Your task to perform on an android device: make emails show in primary in the gmail app Image 0: 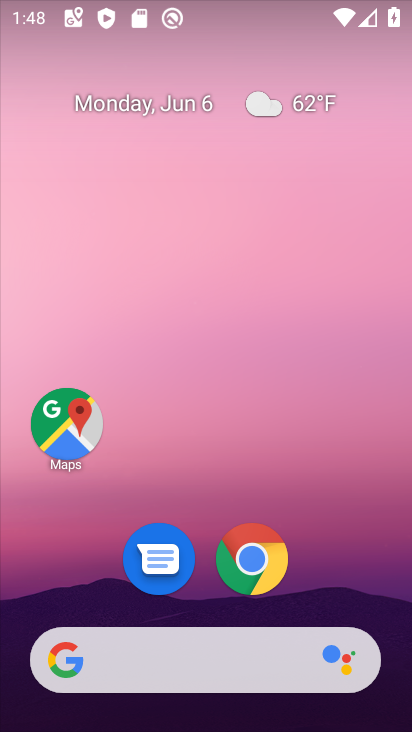
Step 0: drag from (58, 613) to (144, 197)
Your task to perform on an android device: make emails show in primary in the gmail app Image 1: 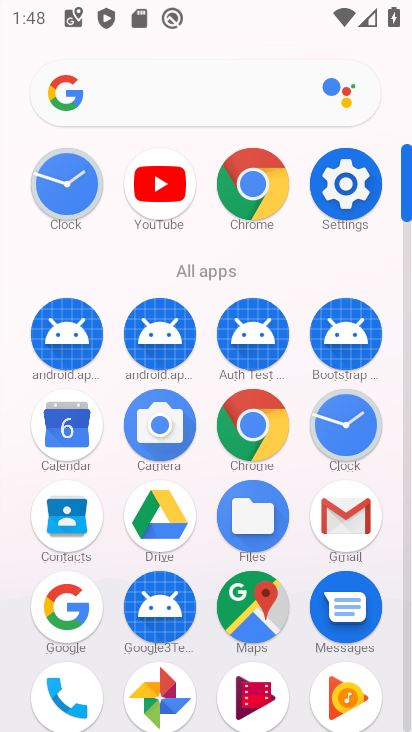
Step 1: click (357, 524)
Your task to perform on an android device: make emails show in primary in the gmail app Image 2: 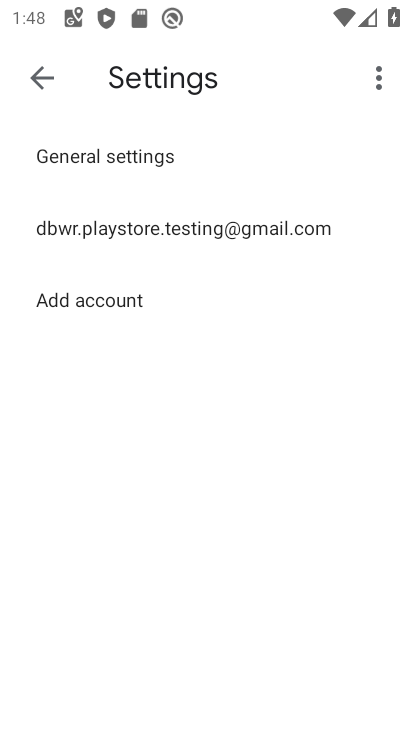
Step 2: click (168, 239)
Your task to perform on an android device: make emails show in primary in the gmail app Image 3: 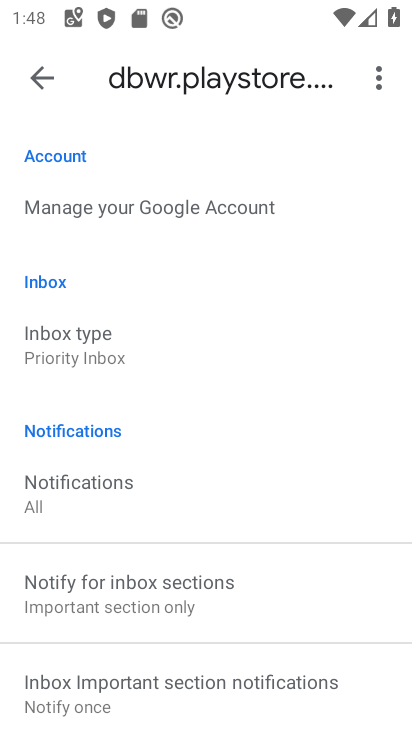
Step 3: click (147, 353)
Your task to perform on an android device: make emails show in primary in the gmail app Image 4: 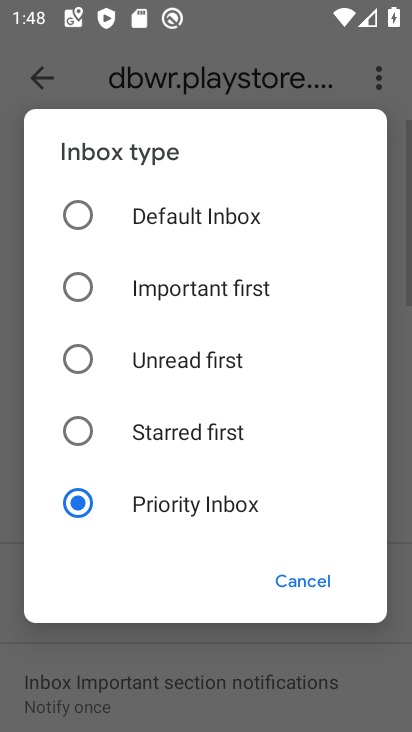
Step 4: click (219, 228)
Your task to perform on an android device: make emails show in primary in the gmail app Image 5: 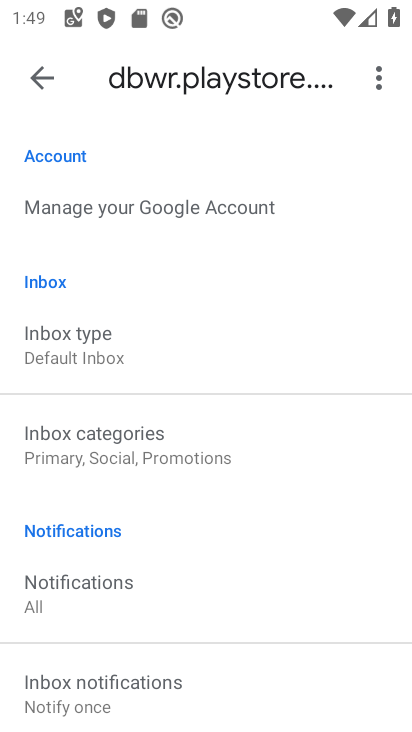
Step 5: click (195, 456)
Your task to perform on an android device: make emails show in primary in the gmail app Image 6: 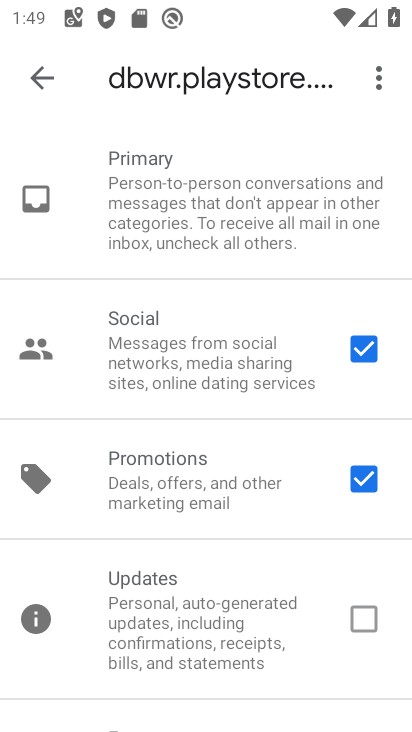
Step 6: drag from (172, 667) to (245, 285)
Your task to perform on an android device: make emails show in primary in the gmail app Image 7: 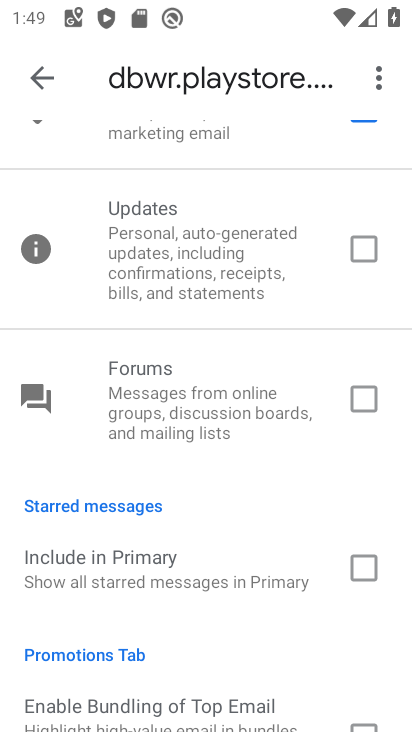
Step 7: click (376, 568)
Your task to perform on an android device: make emails show in primary in the gmail app Image 8: 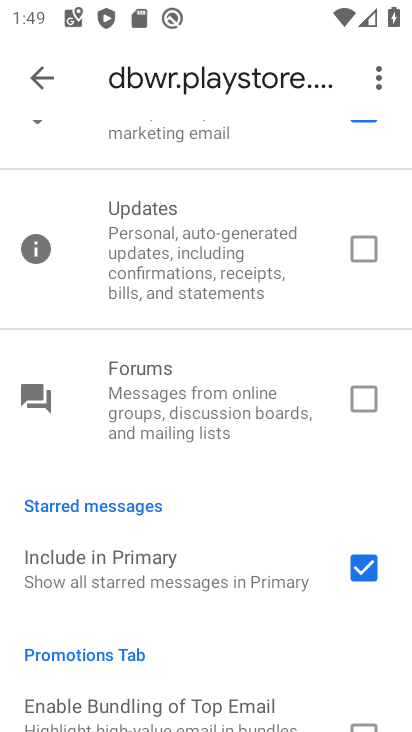
Step 8: press back button
Your task to perform on an android device: make emails show in primary in the gmail app Image 9: 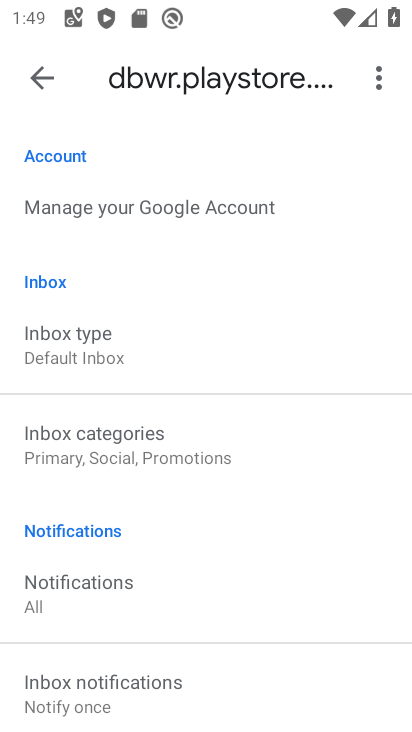
Step 9: press back button
Your task to perform on an android device: make emails show in primary in the gmail app Image 10: 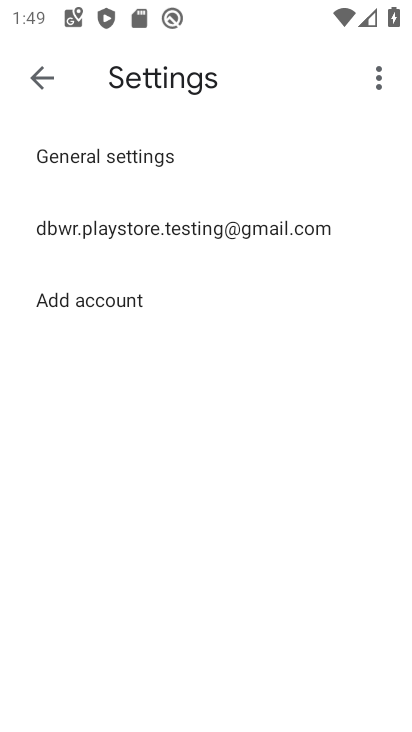
Step 10: press back button
Your task to perform on an android device: make emails show in primary in the gmail app Image 11: 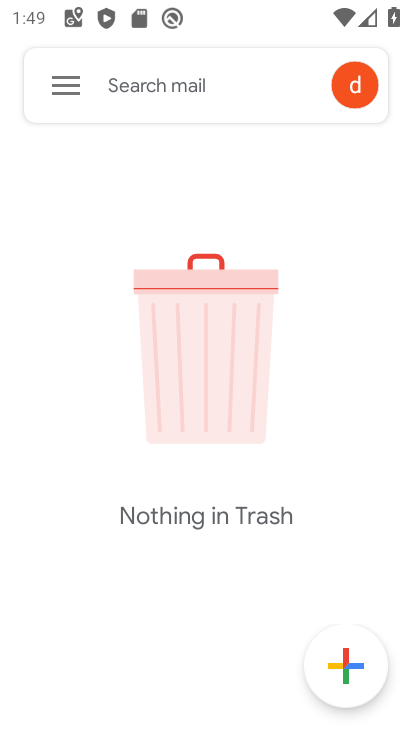
Step 11: click (47, 79)
Your task to perform on an android device: make emails show in primary in the gmail app Image 12: 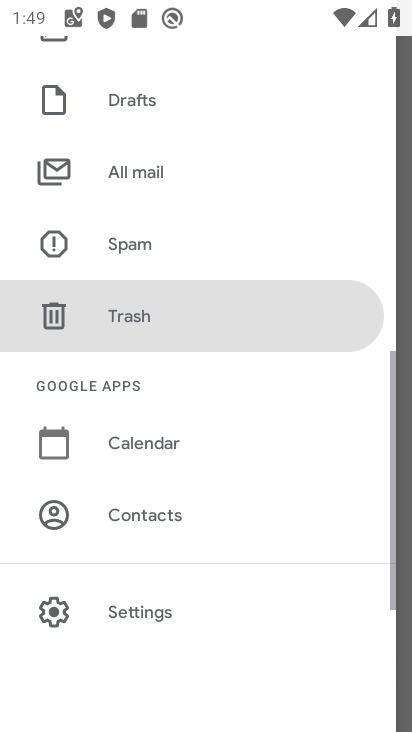
Step 12: drag from (198, 208) to (148, 731)
Your task to perform on an android device: make emails show in primary in the gmail app Image 13: 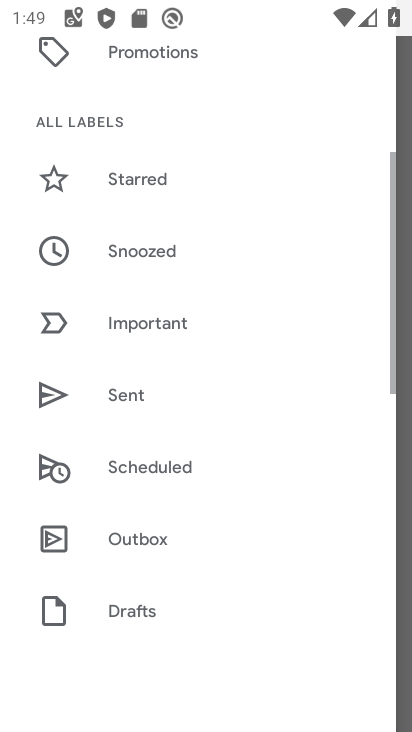
Step 13: drag from (166, 233) to (140, 590)
Your task to perform on an android device: make emails show in primary in the gmail app Image 14: 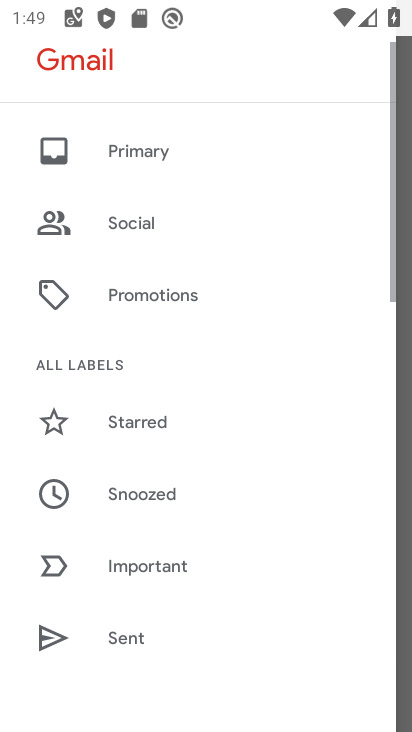
Step 14: click (199, 184)
Your task to perform on an android device: make emails show in primary in the gmail app Image 15: 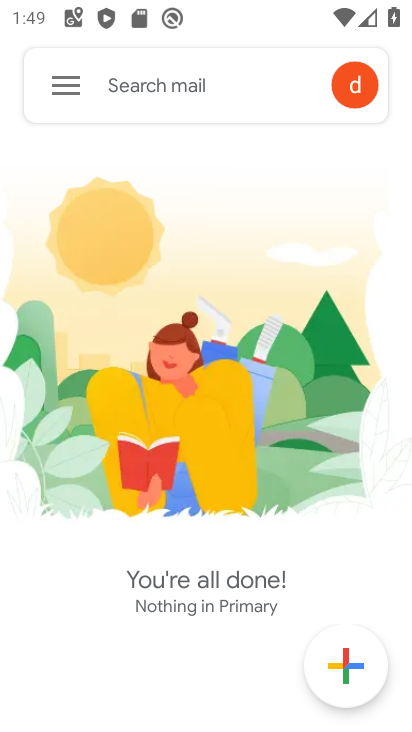
Step 15: task complete